Your task to perform on an android device: open app "ColorNote Notepad Notes" Image 0: 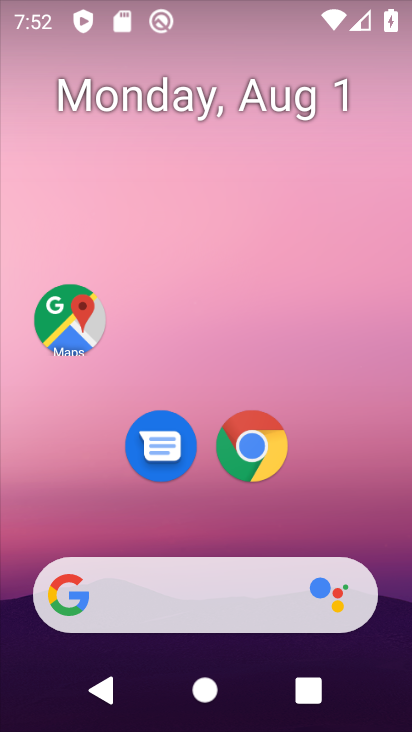
Step 0: drag from (168, 519) to (214, 81)
Your task to perform on an android device: open app "ColorNote Notepad Notes" Image 1: 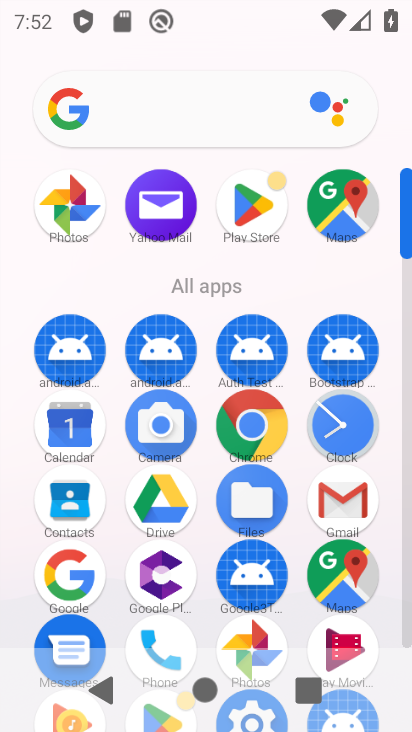
Step 1: click (242, 200)
Your task to perform on an android device: open app "ColorNote Notepad Notes" Image 2: 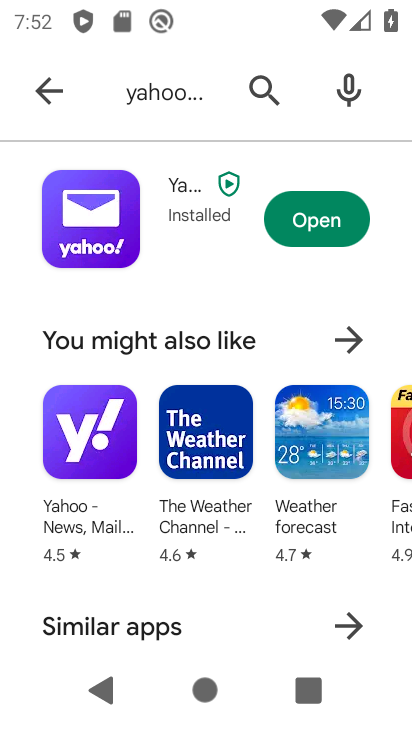
Step 2: click (261, 74)
Your task to perform on an android device: open app "ColorNote Notepad Notes" Image 3: 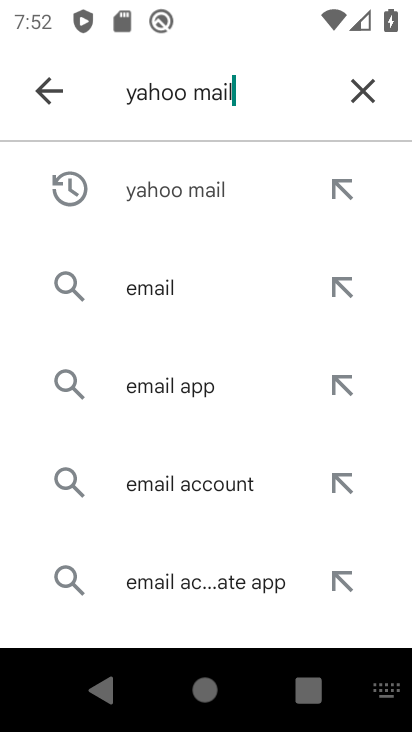
Step 3: click (368, 81)
Your task to perform on an android device: open app "ColorNote Notepad Notes" Image 4: 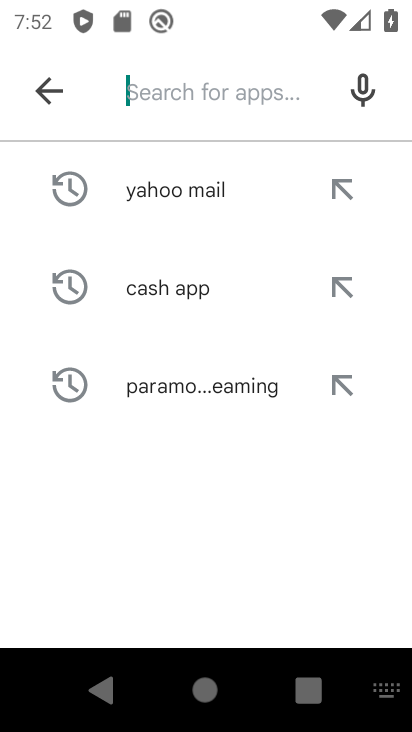
Step 4: type "ColorNote Notepad Notes"
Your task to perform on an android device: open app "ColorNote Notepad Notes" Image 5: 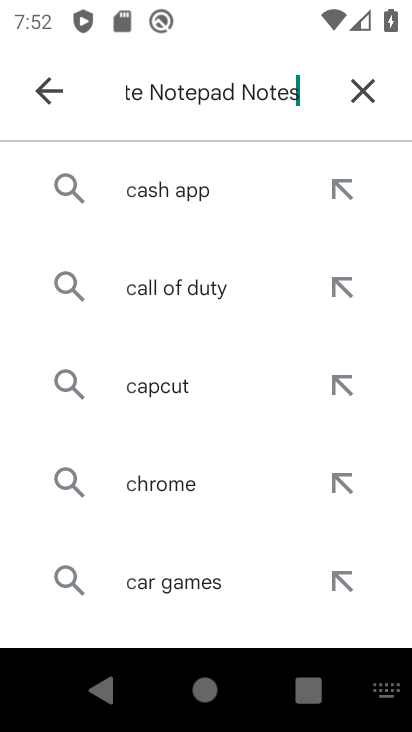
Step 5: type ""
Your task to perform on an android device: open app "ColorNote Notepad Notes" Image 6: 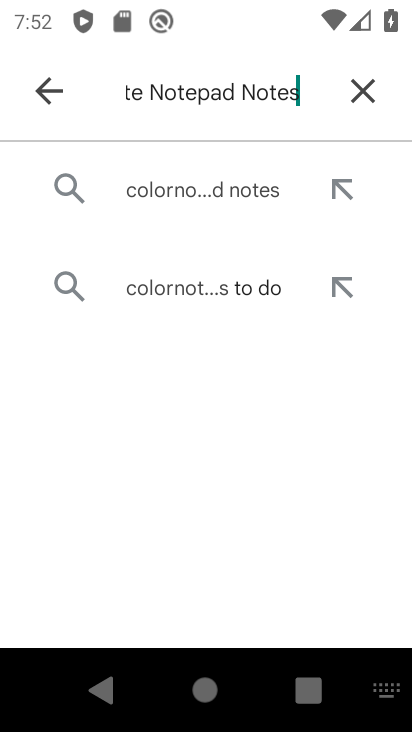
Step 6: click (224, 185)
Your task to perform on an android device: open app "ColorNote Notepad Notes" Image 7: 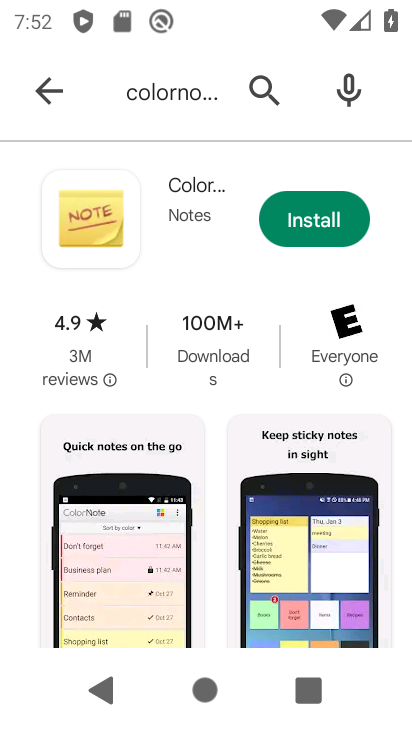
Step 7: task complete